Your task to perform on an android device: turn off wifi Image 0: 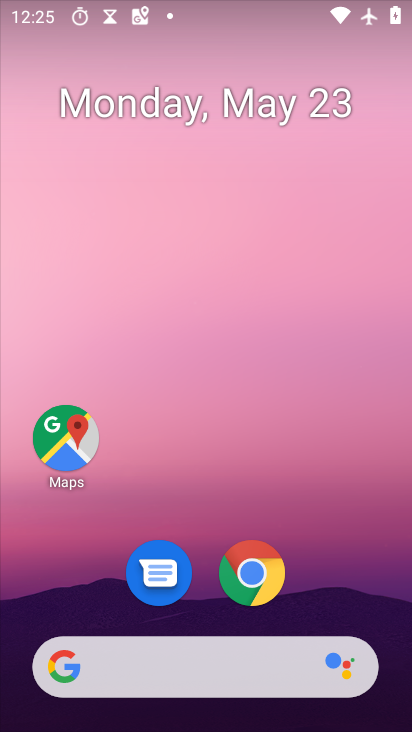
Step 0: press home button
Your task to perform on an android device: turn off wifi Image 1: 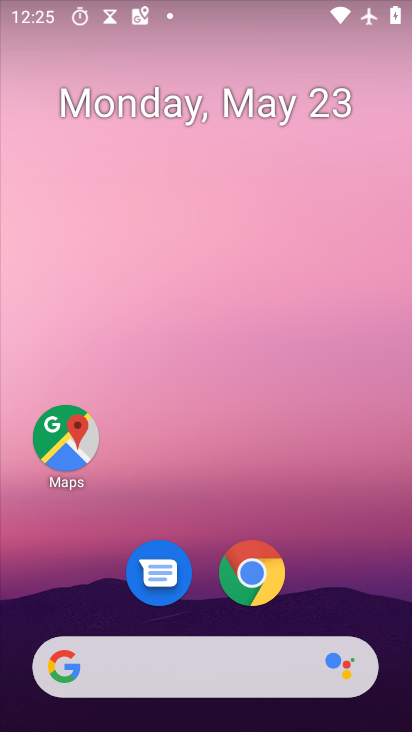
Step 1: drag from (149, 670) to (297, 149)
Your task to perform on an android device: turn off wifi Image 2: 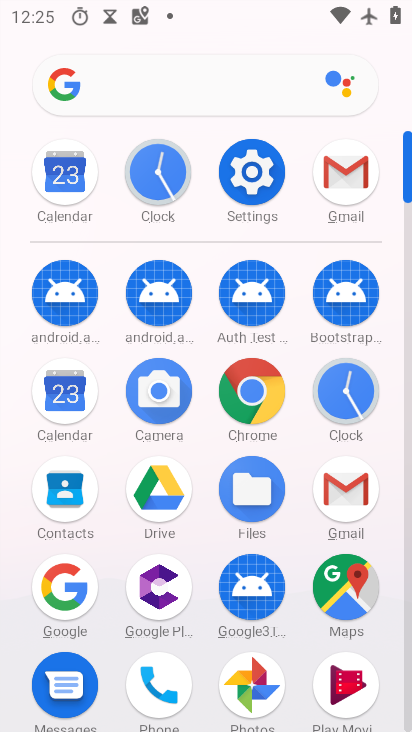
Step 2: click (268, 176)
Your task to perform on an android device: turn off wifi Image 3: 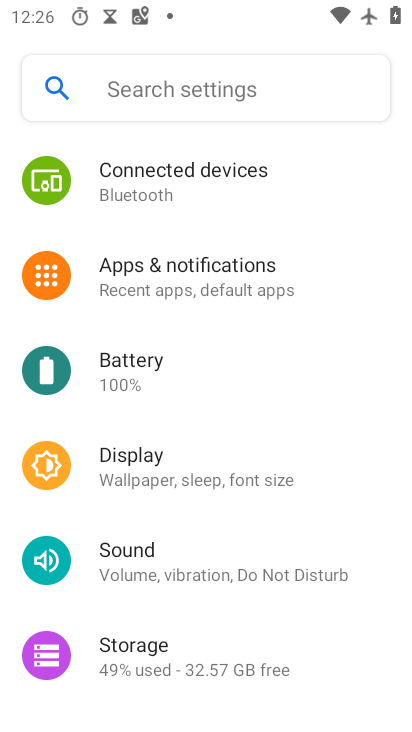
Step 3: drag from (334, 196) to (254, 615)
Your task to perform on an android device: turn off wifi Image 4: 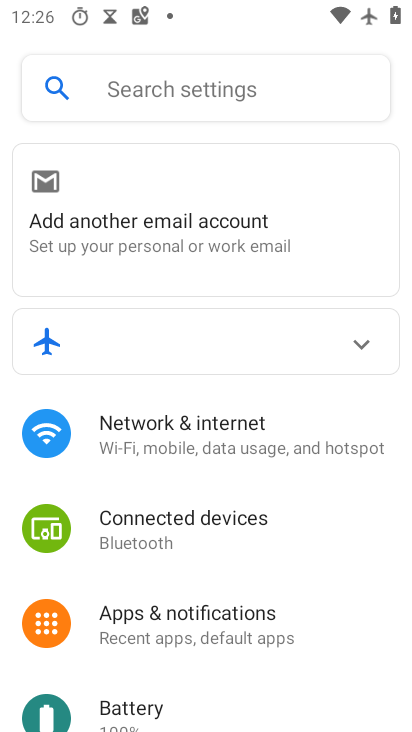
Step 4: click (234, 445)
Your task to perform on an android device: turn off wifi Image 5: 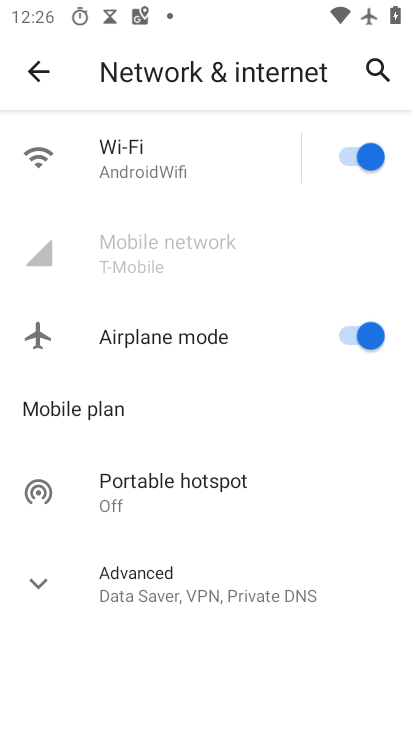
Step 5: click (357, 155)
Your task to perform on an android device: turn off wifi Image 6: 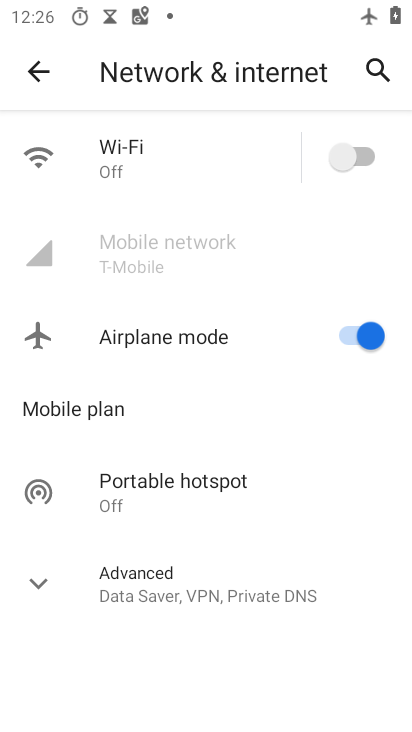
Step 6: task complete